Your task to perform on an android device: clear history in the chrome app Image 0: 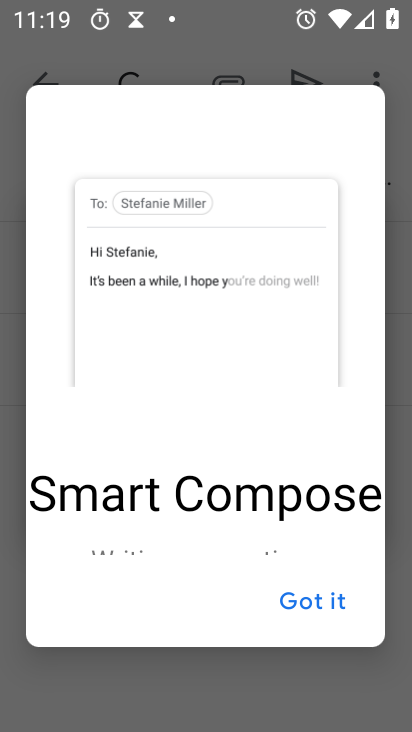
Step 0: press home button
Your task to perform on an android device: clear history in the chrome app Image 1: 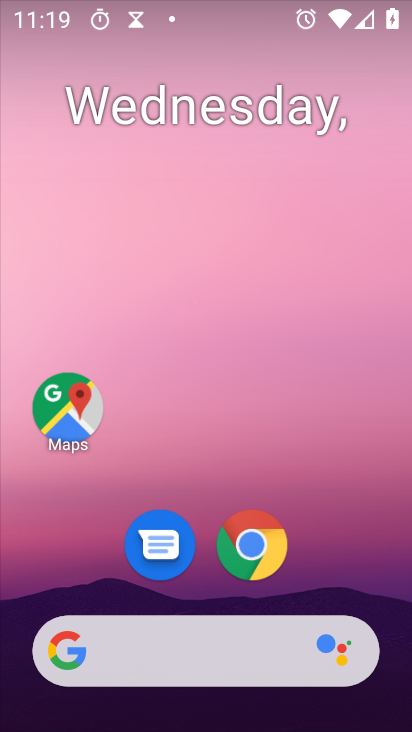
Step 1: click (242, 564)
Your task to perform on an android device: clear history in the chrome app Image 2: 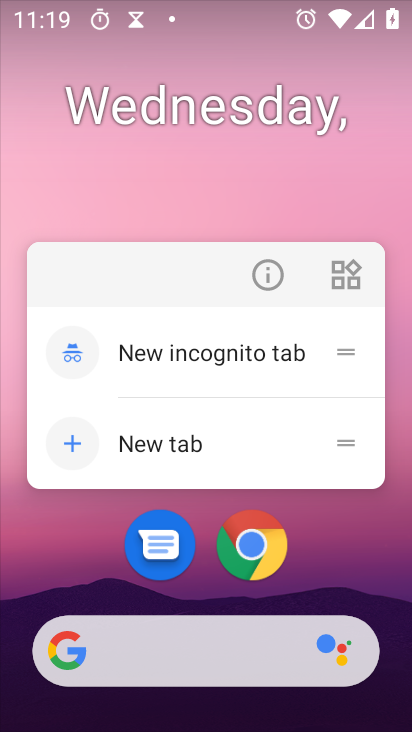
Step 2: click (263, 541)
Your task to perform on an android device: clear history in the chrome app Image 3: 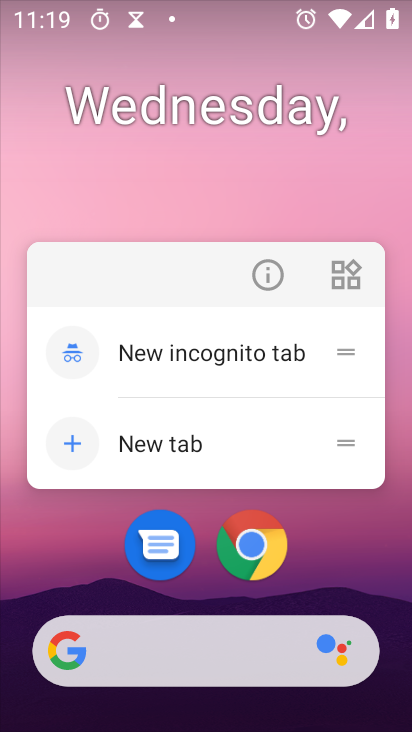
Step 3: click (256, 546)
Your task to perform on an android device: clear history in the chrome app Image 4: 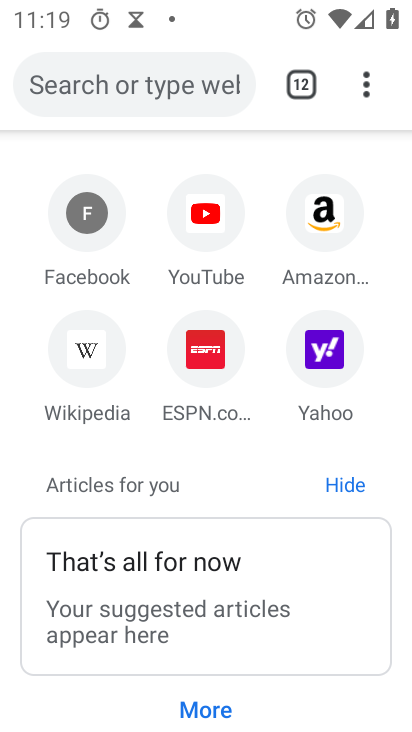
Step 4: drag from (360, 87) to (124, 482)
Your task to perform on an android device: clear history in the chrome app Image 5: 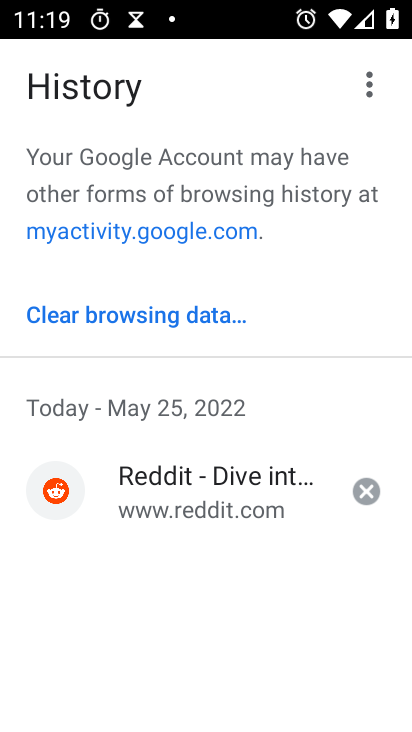
Step 5: click (180, 315)
Your task to perform on an android device: clear history in the chrome app Image 6: 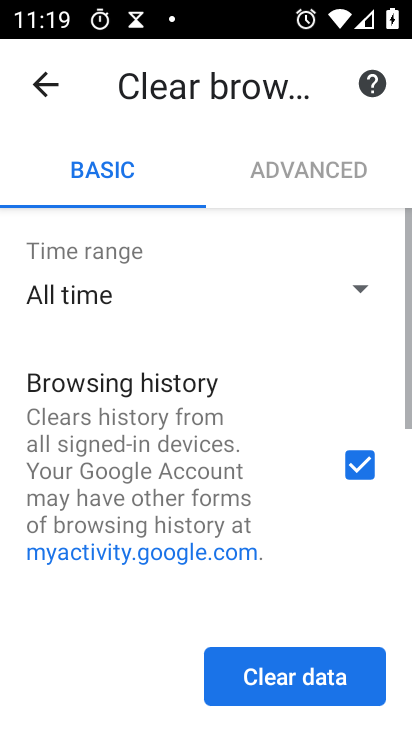
Step 6: drag from (250, 575) to (288, 138)
Your task to perform on an android device: clear history in the chrome app Image 7: 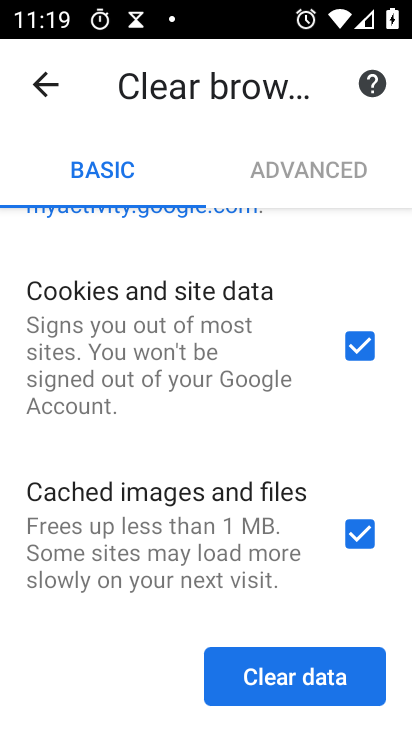
Step 7: click (290, 690)
Your task to perform on an android device: clear history in the chrome app Image 8: 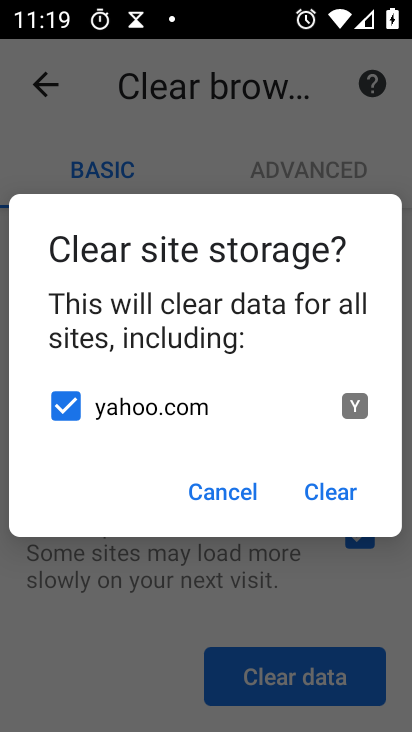
Step 8: click (335, 487)
Your task to perform on an android device: clear history in the chrome app Image 9: 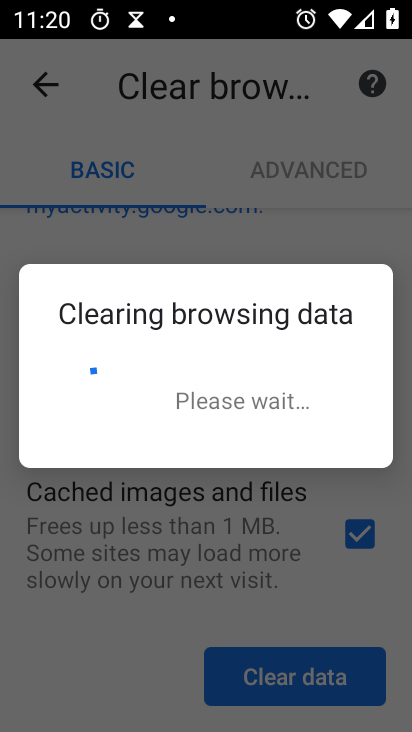
Step 9: click (235, 404)
Your task to perform on an android device: clear history in the chrome app Image 10: 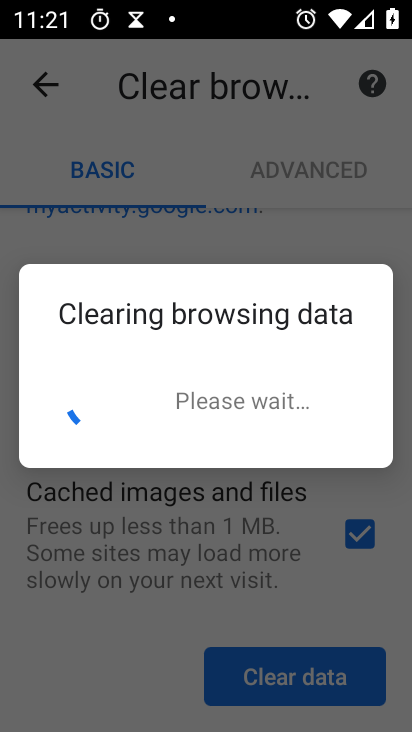
Step 10: click (84, 181)
Your task to perform on an android device: clear history in the chrome app Image 11: 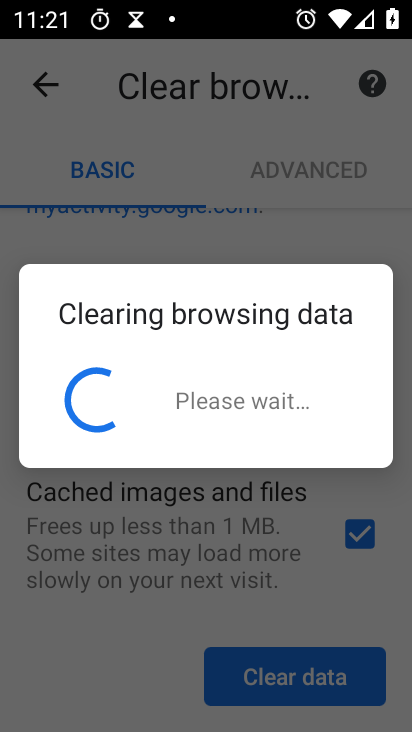
Step 11: click (55, 93)
Your task to perform on an android device: clear history in the chrome app Image 12: 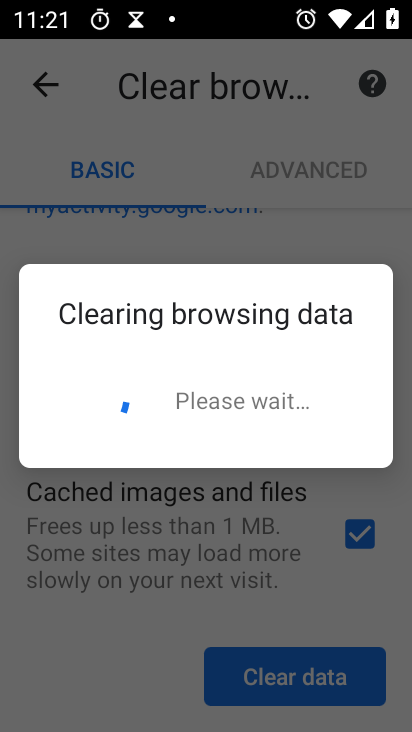
Step 12: click (55, 93)
Your task to perform on an android device: clear history in the chrome app Image 13: 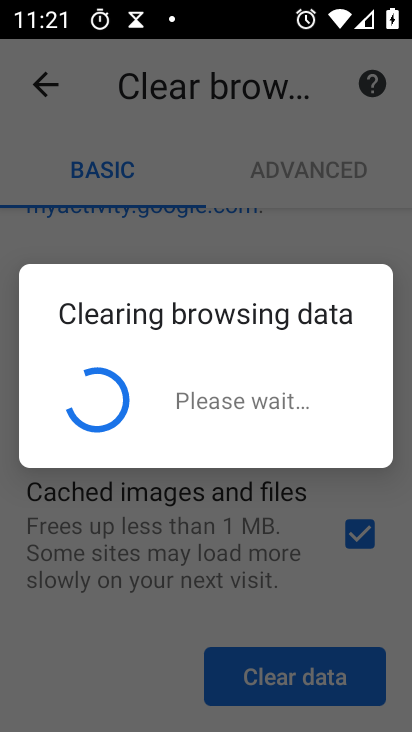
Step 13: task complete